Your task to perform on an android device: clear all cookies in the chrome app Image 0: 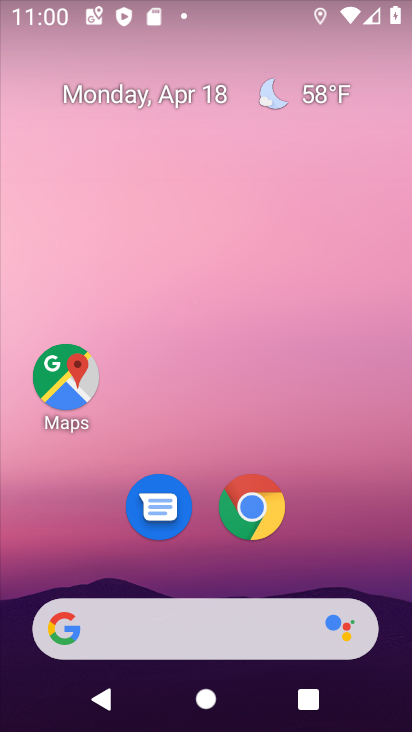
Step 0: click (259, 532)
Your task to perform on an android device: clear all cookies in the chrome app Image 1: 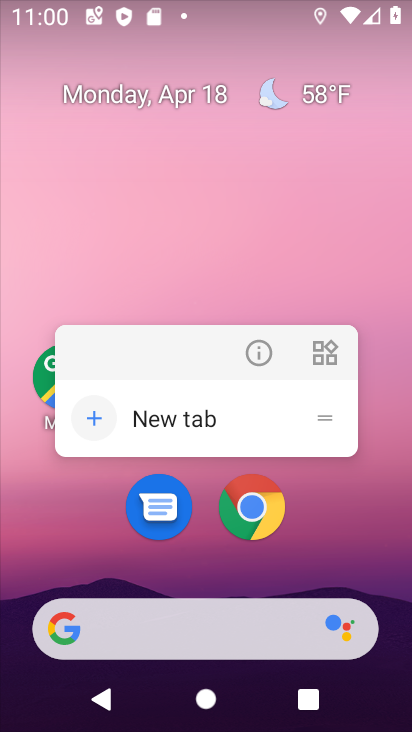
Step 1: click (254, 491)
Your task to perform on an android device: clear all cookies in the chrome app Image 2: 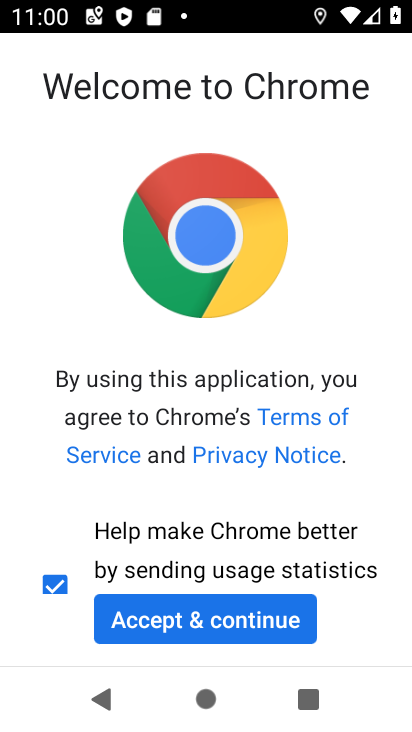
Step 2: click (264, 616)
Your task to perform on an android device: clear all cookies in the chrome app Image 3: 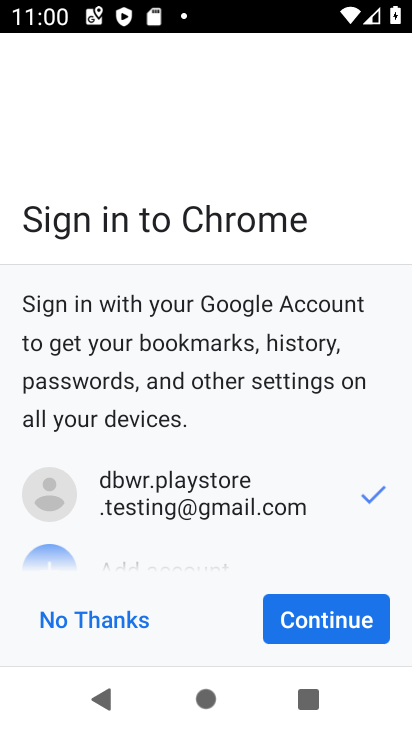
Step 3: click (300, 619)
Your task to perform on an android device: clear all cookies in the chrome app Image 4: 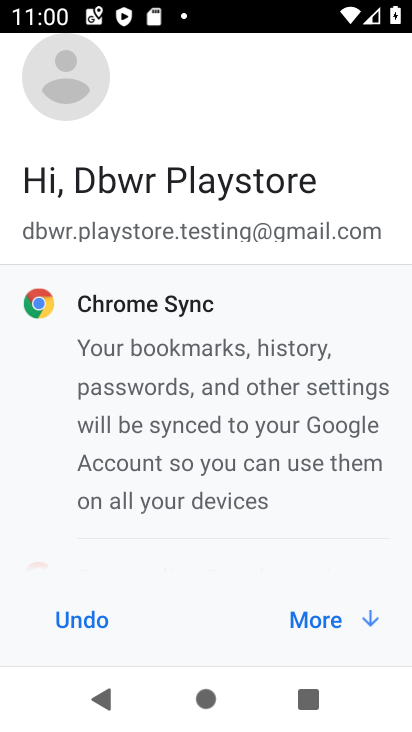
Step 4: click (310, 607)
Your task to perform on an android device: clear all cookies in the chrome app Image 5: 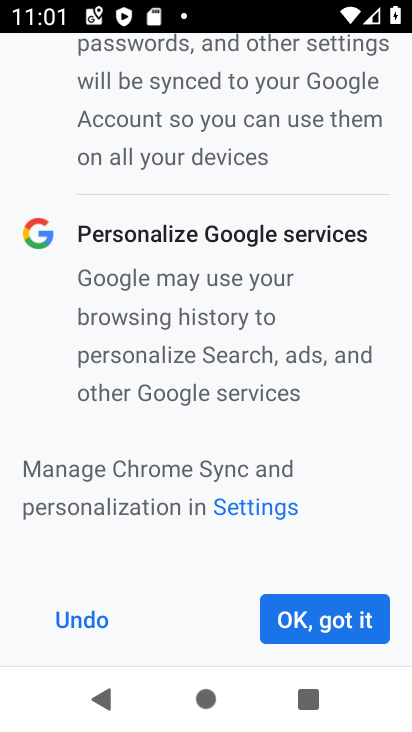
Step 5: click (309, 610)
Your task to perform on an android device: clear all cookies in the chrome app Image 6: 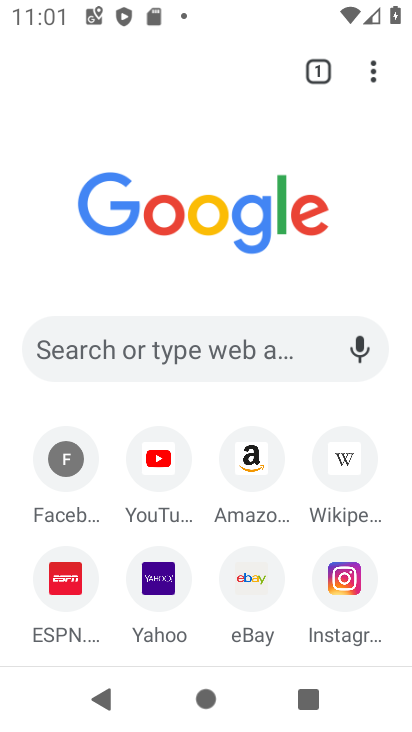
Step 6: click (378, 69)
Your task to perform on an android device: clear all cookies in the chrome app Image 7: 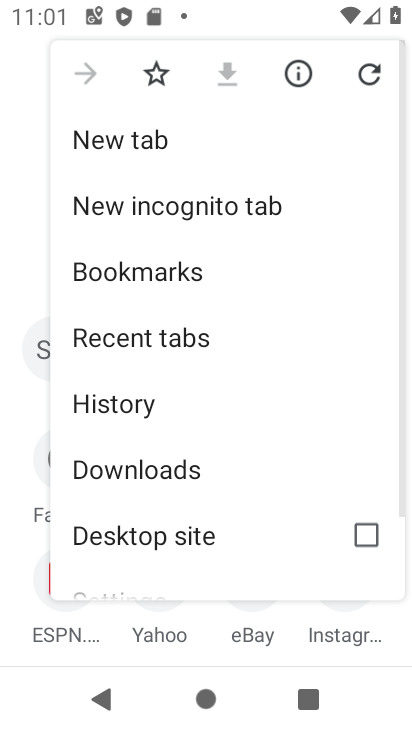
Step 7: drag from (174, 535) to (215, 227)
Your task to perform on an android device: clear all cookies in the chrome app Image 8: 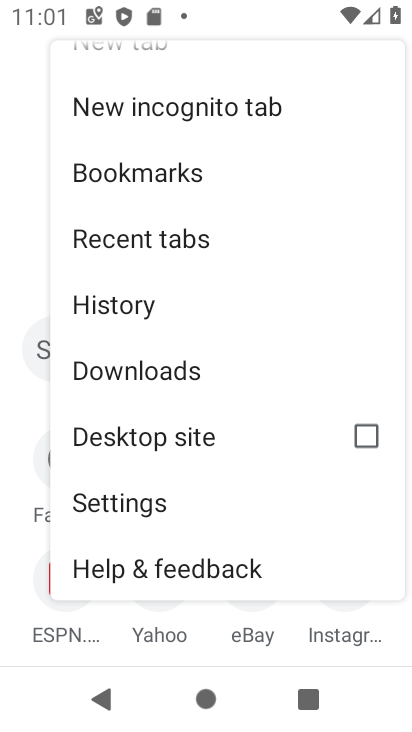
Step 8: click (120, 319)
Your task to perform on an android device: clear all cookies in the chrome app Image 9: 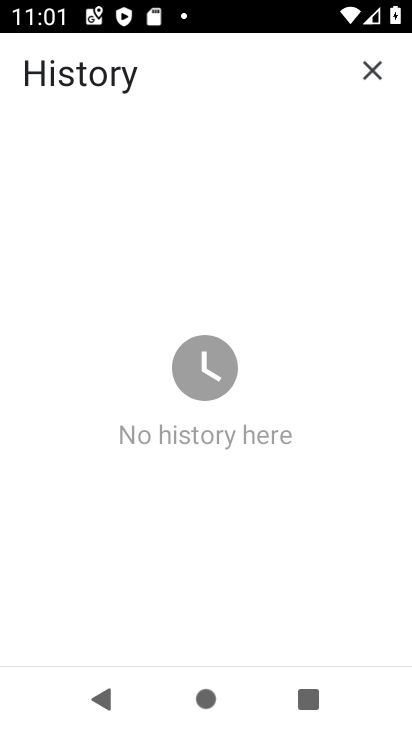
Step 9: task complete